Your task to perform on an android device: check storage Image 0: 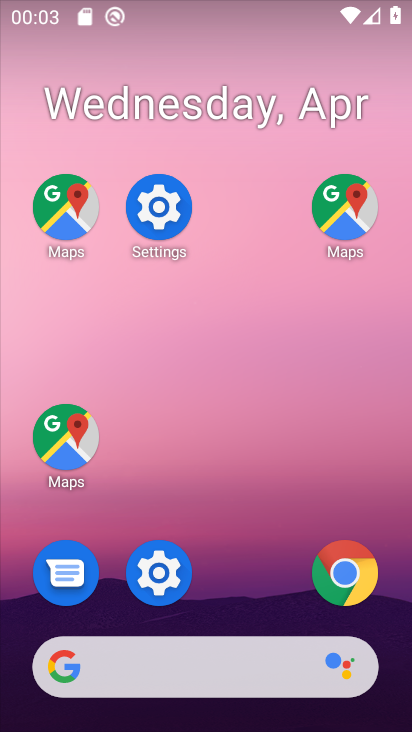
Step 0: drag from (226, 494) to (126, 61)
Your task to perform on an android device: check storage Image 1: 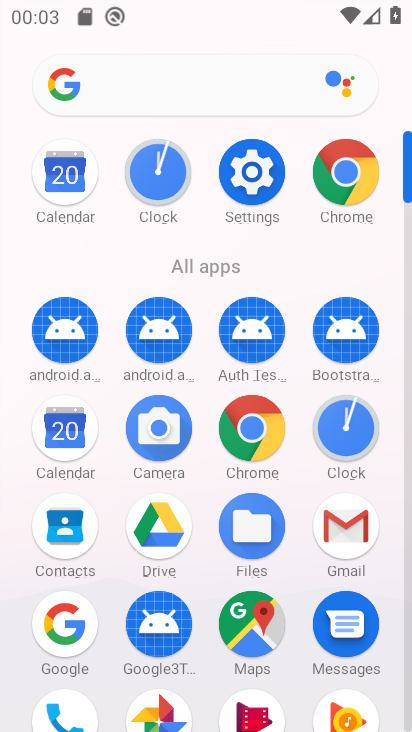
Step 1: click (254, 184)
Your task to perform on an android device: check storage Image 2: 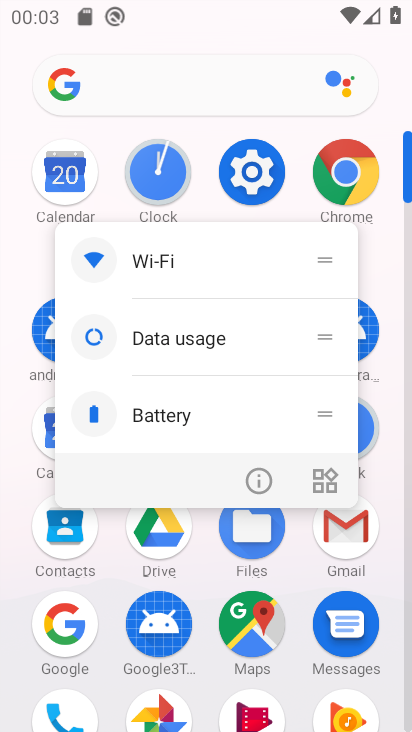
Step 2: click (254, 184)
Your task to perform on an android device: check storage Image 3: 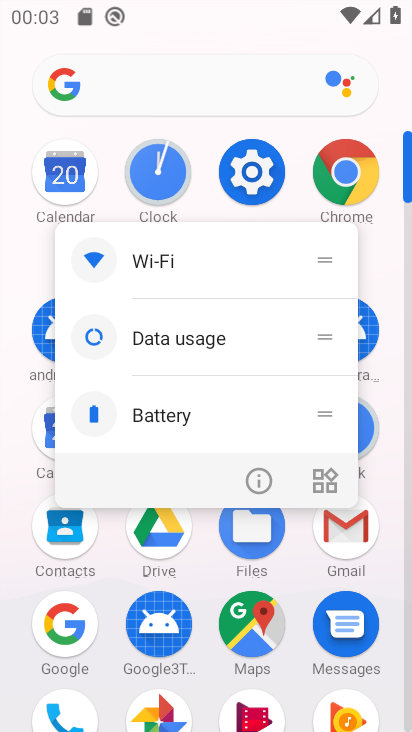
Step 3: click (254, 184)
Your task to perform on an android device: check storage Image 4: 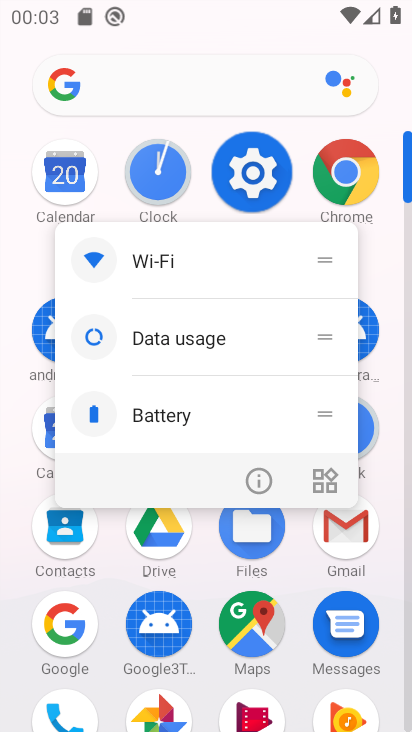
Step 4: click (254, 184)
Your task to perform on an android device: check storage Image 5: 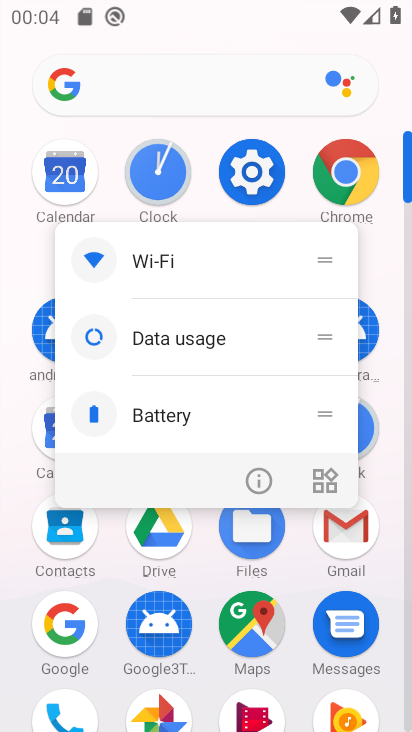
Step 5: click (251, 184)
Your task to perform on an android device: check storage Image 6: 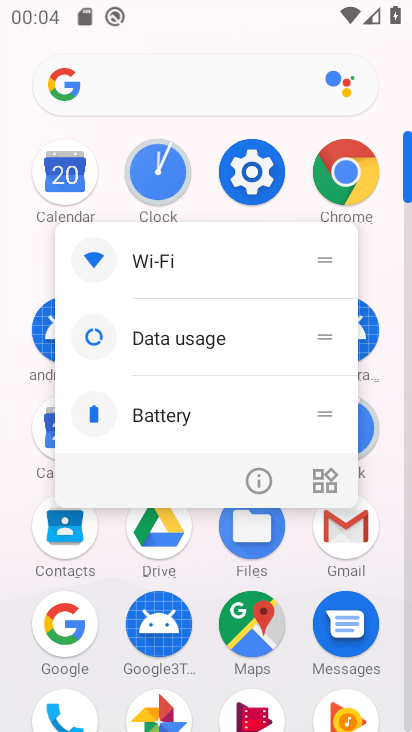
Step 6: click (252, 185)
Your task to perform on an android device: check storage Image 7: 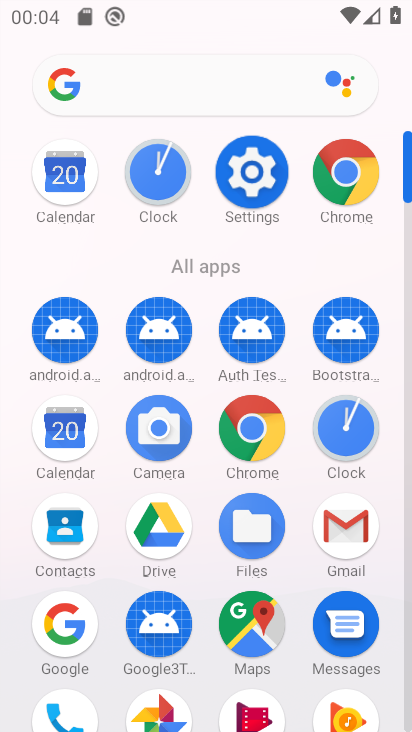
Step 7: click (252, 176)
Your task to perform on an android device: check storage Image 8: 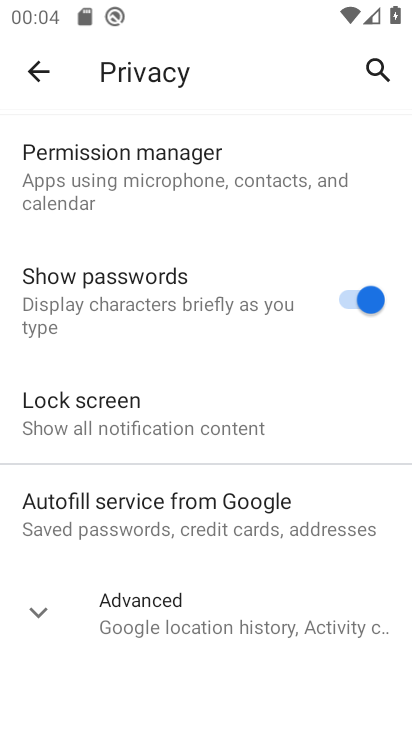
Step 8: click (26, 61)
Your task to perform on an android device: check storage Image 9: 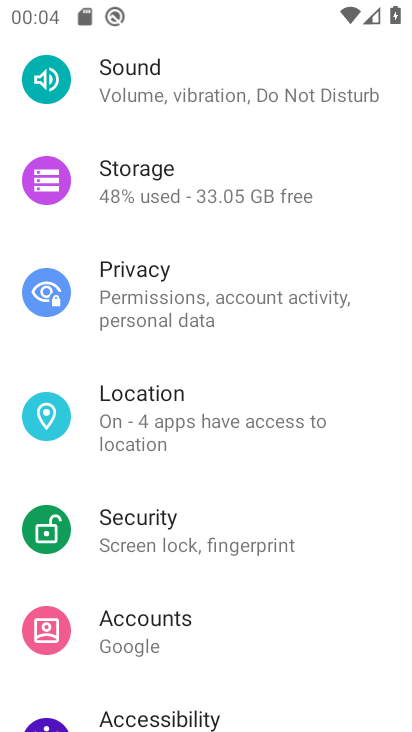
Step 9: click (151, 189)
Your task to perform on an android device: check storage Image 10: 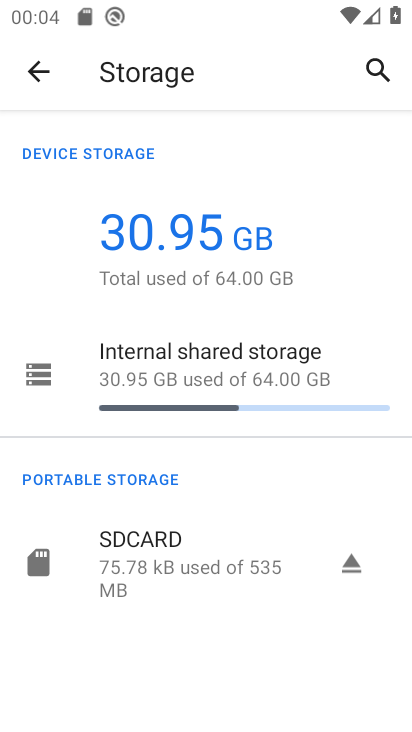
Step 10: task complete